Your task to perform on an android device: turn off airplane mode Image 0: 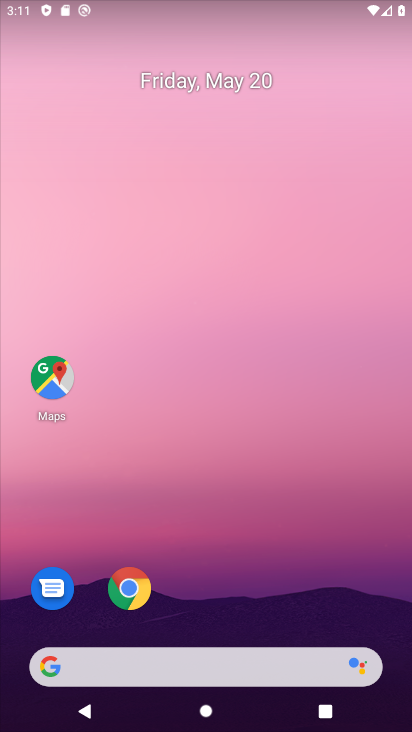
Step 0: press home button
Your task to perform on an android device: turn off airplane mode Image 1: 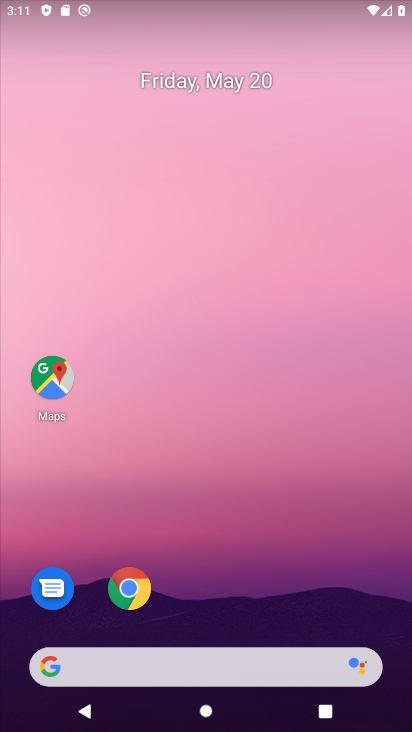
Step 1: drag from (150, 673) to (257, 124)
Your task to perform on an android device: turn off airplane mode Image 2: 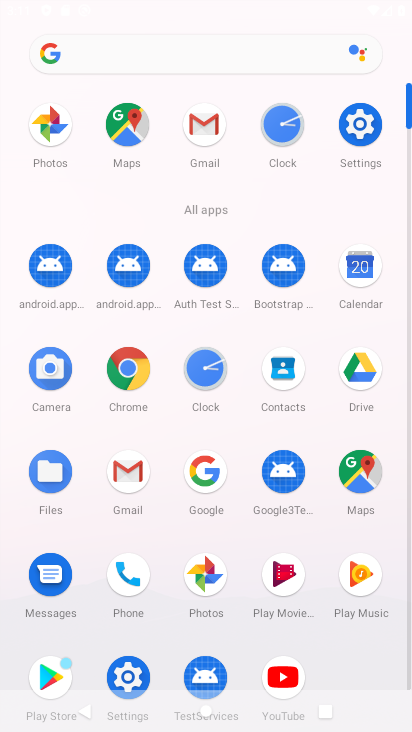
Step 2: click (363, 131)
Your task to perform on an android device: turn off airplane mode Image 3: 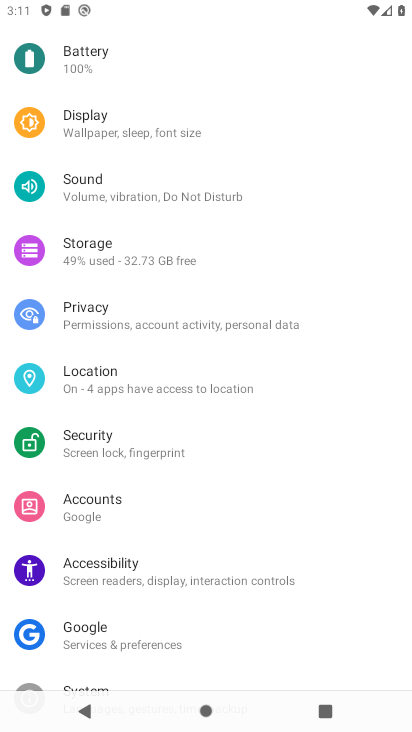
Step 3: drag from (344, 125) to (262, 601)
Your task to perform on an android device: turn off airplane mode Image 4: 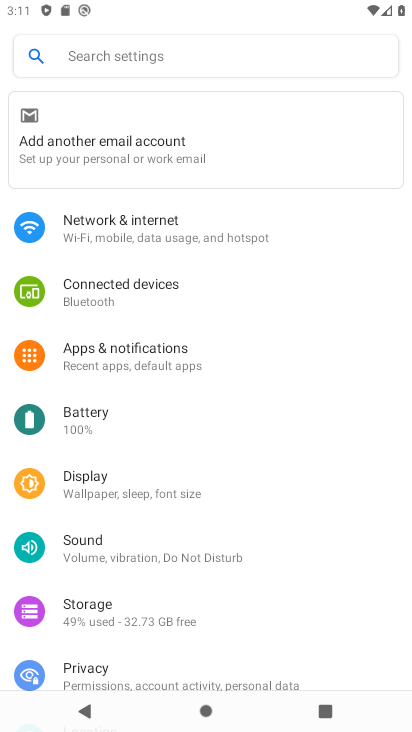
Step 4: click (161, 229)
Your task to perform on an android device: turn off airplane mode Image 5: 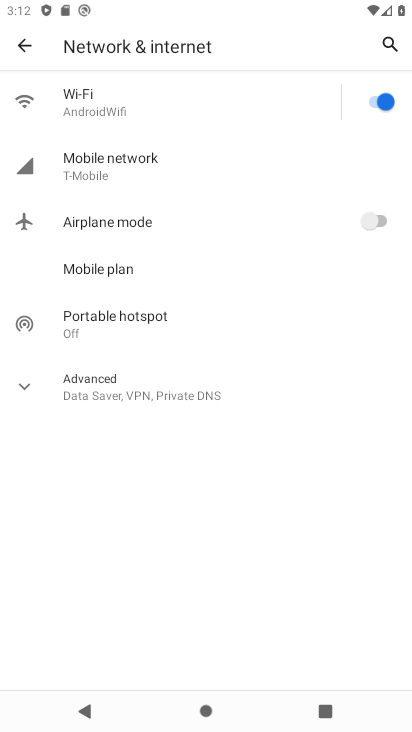
Step 5: task complete